Your task to perform on an android device: find snoozed emails in the gmail app Image 0: 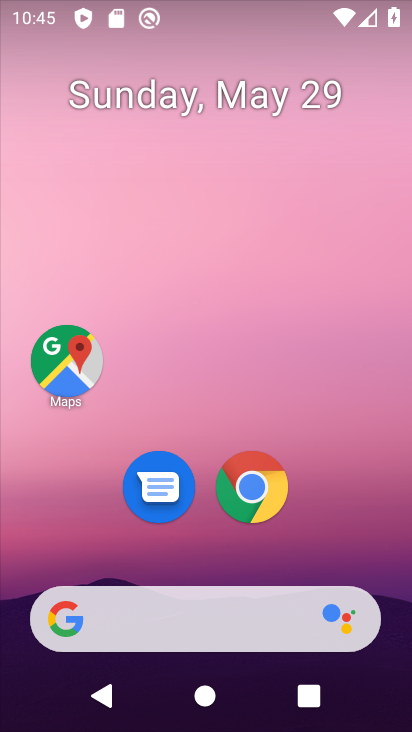
Step 0: drag from (209, 558) to (223, 52)
Your task to perform on an android device: find snoozed emails in the gmail app Image 1: 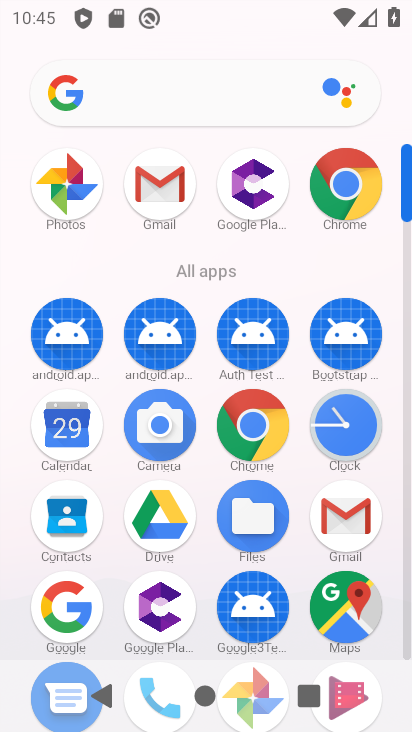
Step 1: click (345, 507)
Your task to perform on an android device: find snoozed emails in the gmail app Image 2: 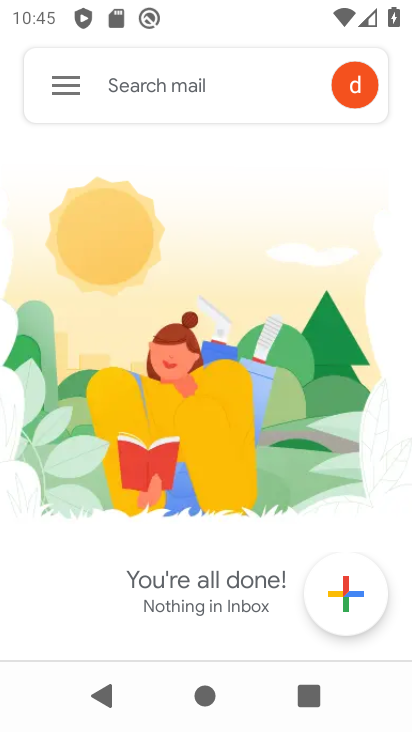
Step 2: click (71, 80)
Your task to perform on an android device: find snoozed emails in the gmail app Image 3: 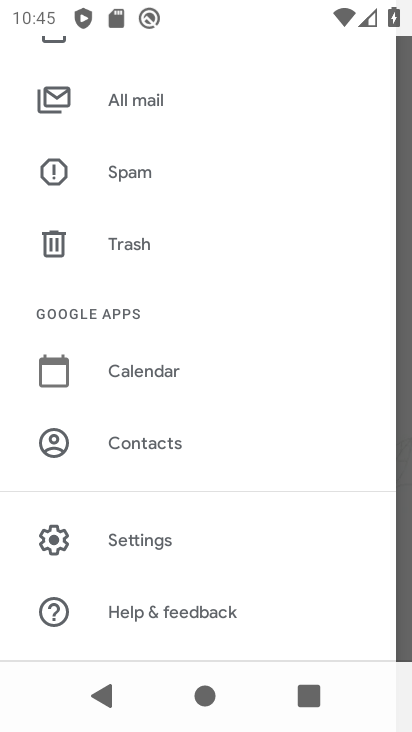
Step 3: drag from (180, 102) to (179, 670)
Your task to perform on an android device: find snoozed emails in the gmail app Image 4: 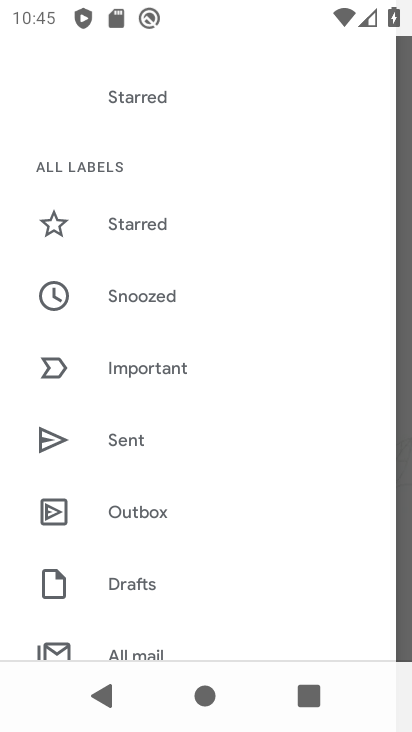
Step 4: click (192, 291)
Your task to perform on an android device: find snoozed emails in the gmail app Image 5: 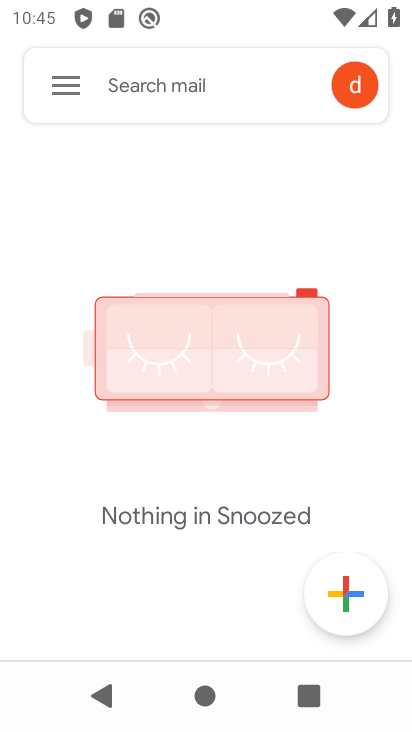
Step 5: task complete